Your task to perform on an android device: turn off location Image 0: 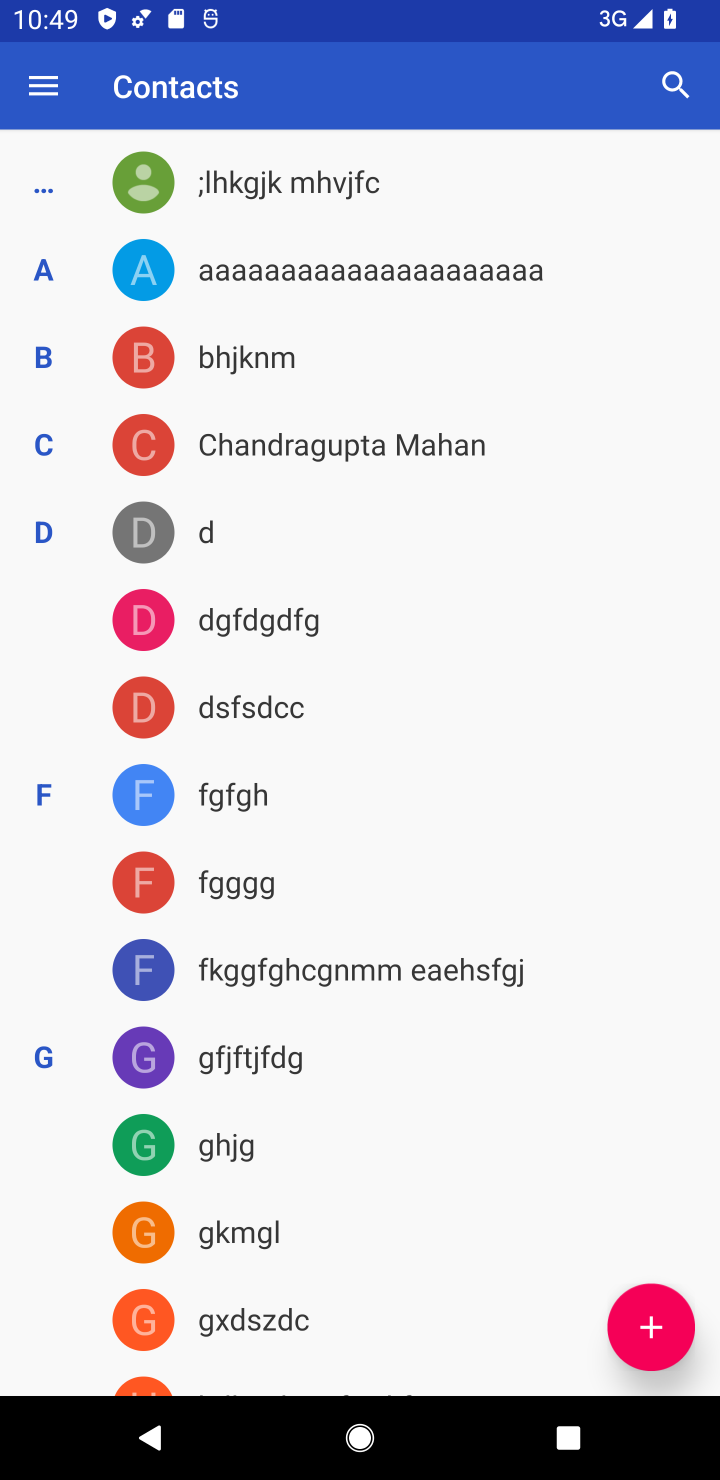
Step 0: press home button
Your task to perform on an android device: turn off location Image 1: 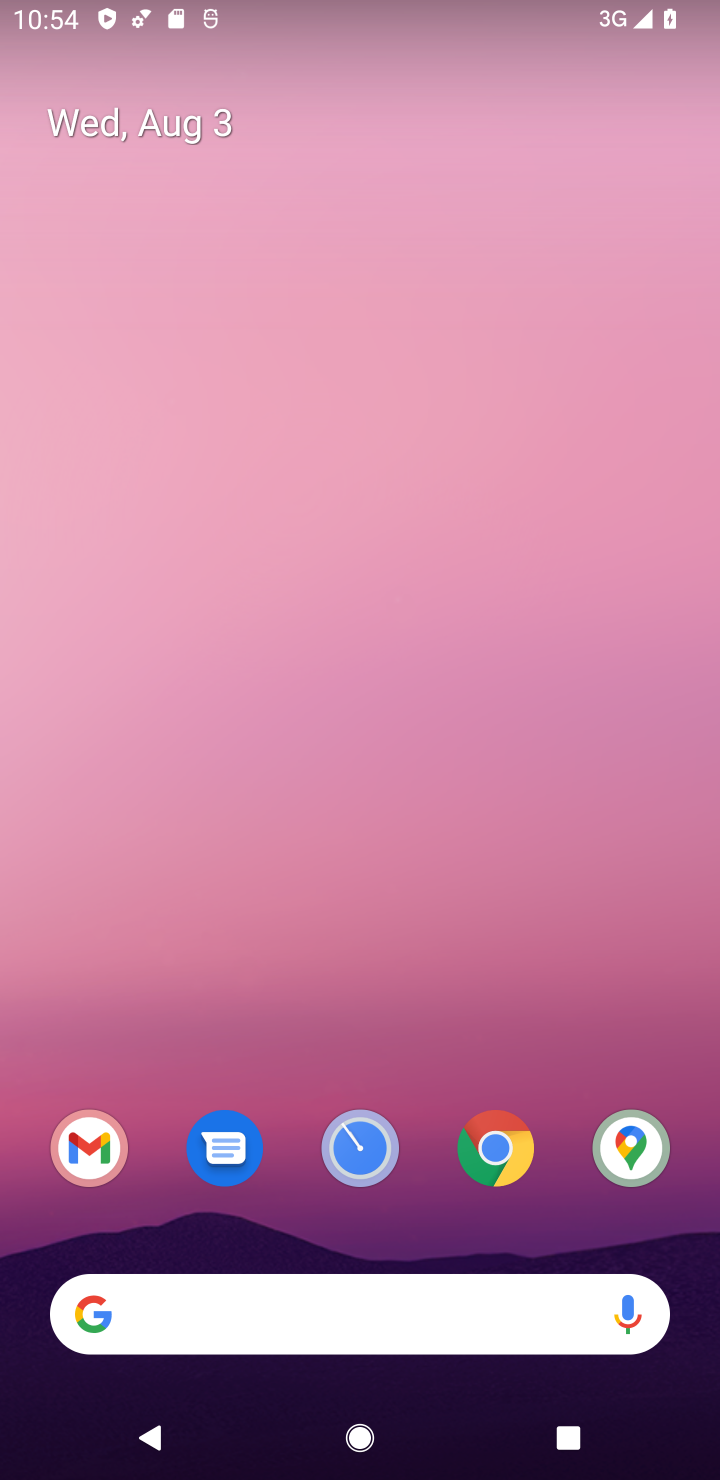
Step 1: click (501, 668)
Your task to perform on an android device: turn off location Image 2: 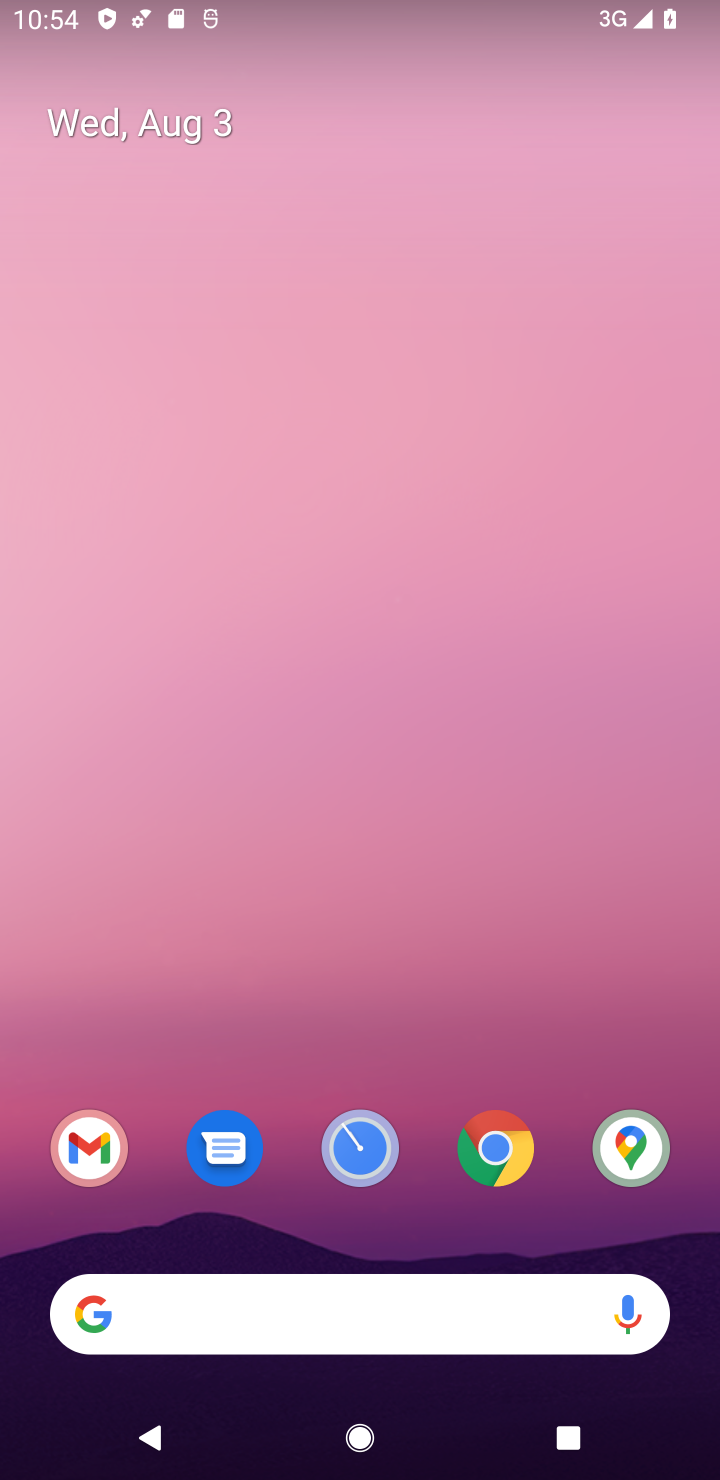
Step 2: drag from (428, 999) to (628, 62)
Your task to perform on an android device: turn off location Image 3: 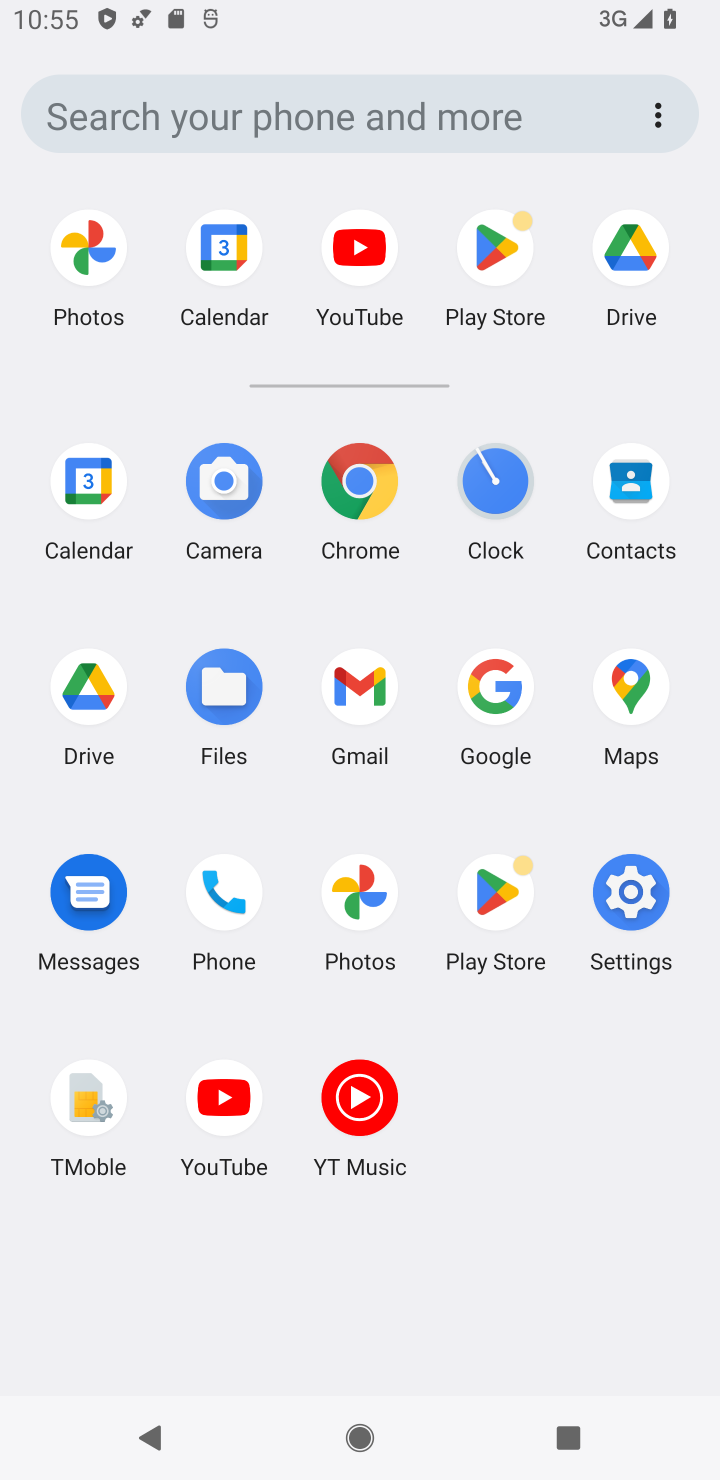
Step 3: click (629, 895)
Your task to perform on an android device: turn off location Image 4: 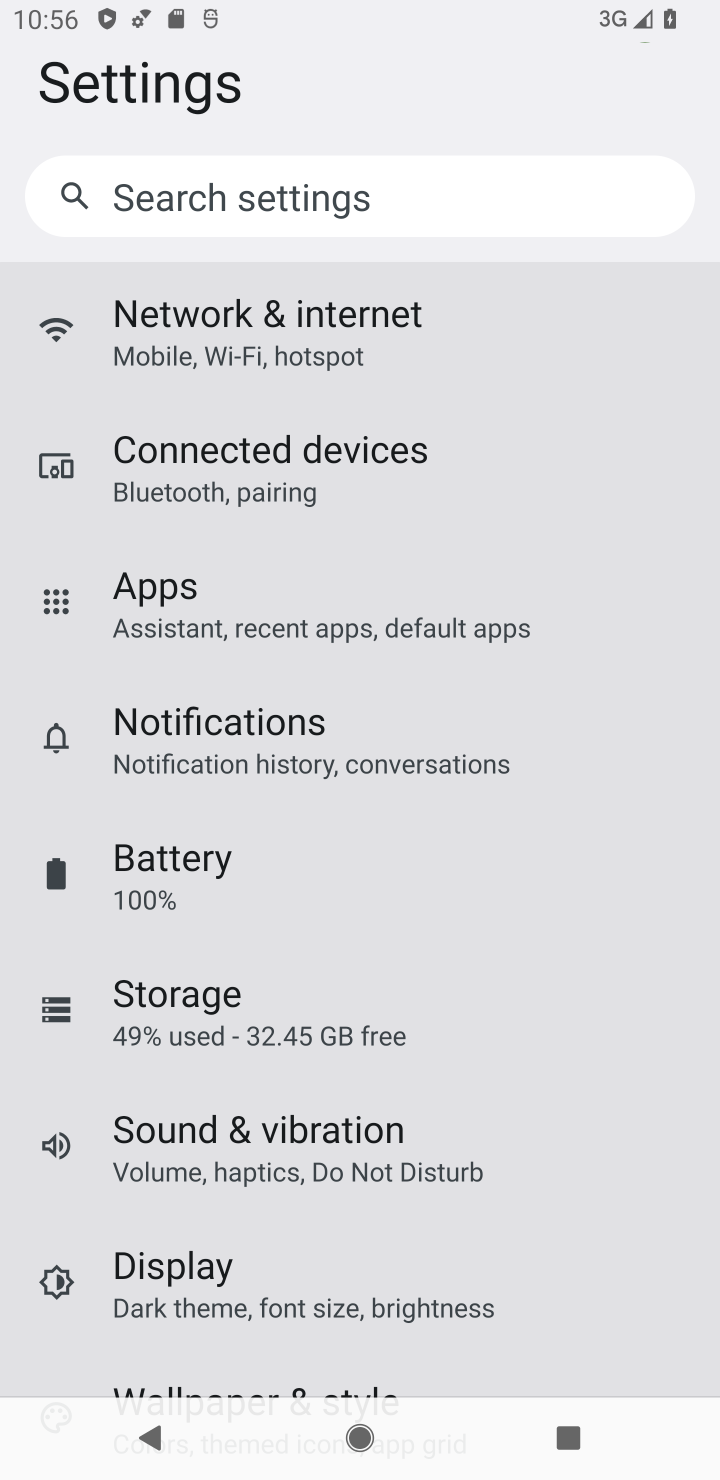
Step 4: task complete